Your task to perform on an android device: toggle priority inbox in the gmail app Image 0: 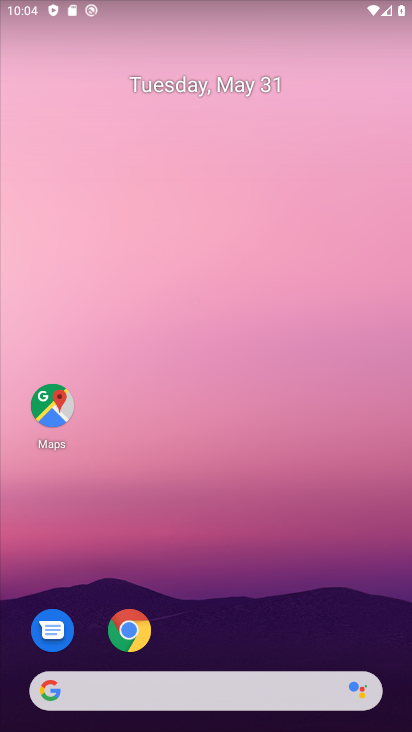
Step 0: drag from (244, 588) to (267, 180)
Your task to perform on an android device: toggle priority inbox in the gmail app Image 1: 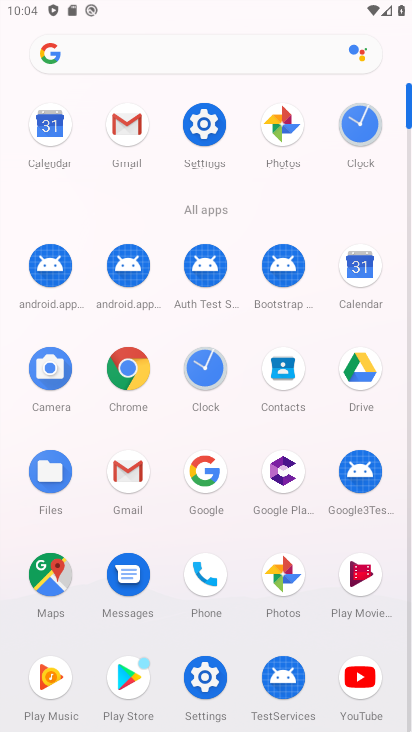
Step 1: click (132, 117)
Your task to perform on an android device: toggle priority inbox in the gmail app Image 2: 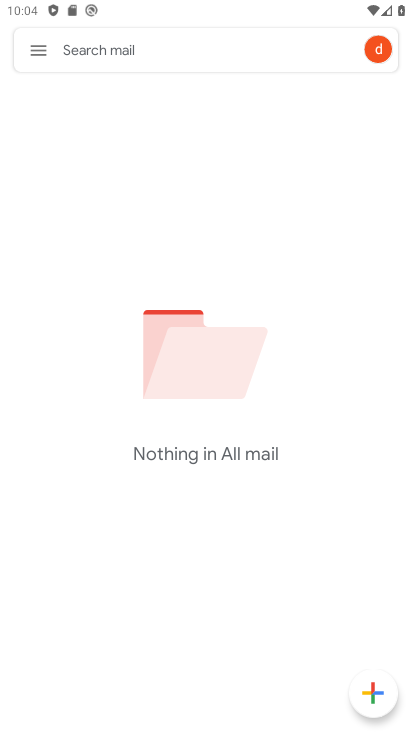
Step 2: click (34, 58)
Your task to perform on an android device: toggle priority inbox in the gmail app Image 3: 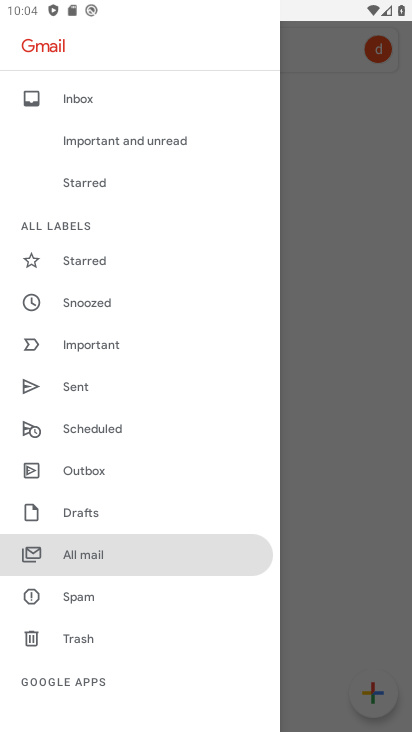
Step 3: drag from (154, 694) to (191, 332)
Your task to perform on an android device: toggle priority inbox in the gmail app Image 4: 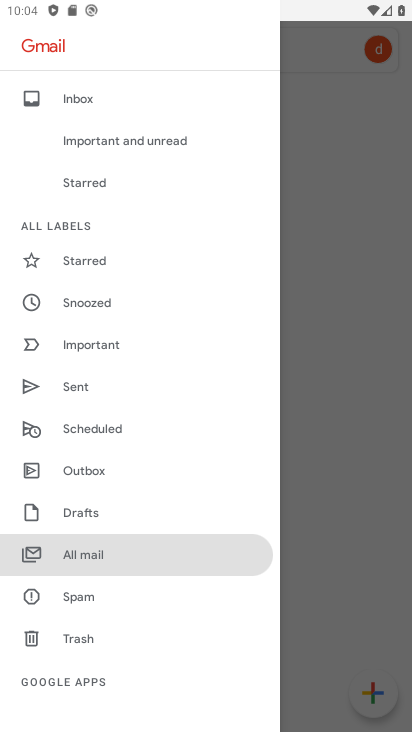
Step 4: drag from (138, 702) to (157, 354)
Your task to perform on an android device: toggle priority inbox in the gmail app Image 5: 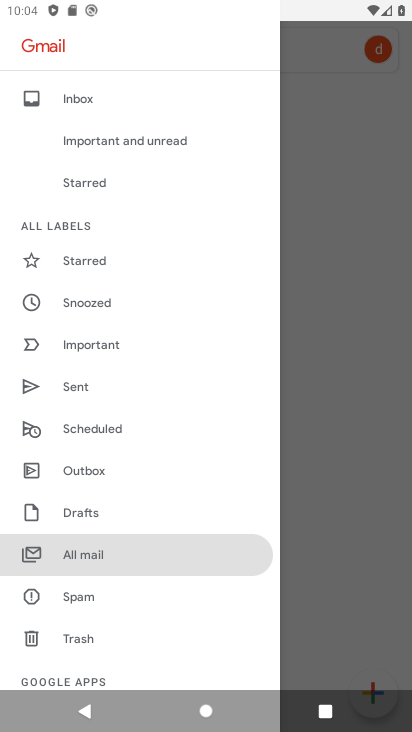
Step 5: drag from (242, 644) to (219, 344)
Your task to perform on an android device: toggle priority inbox in the gmail app Image 6: 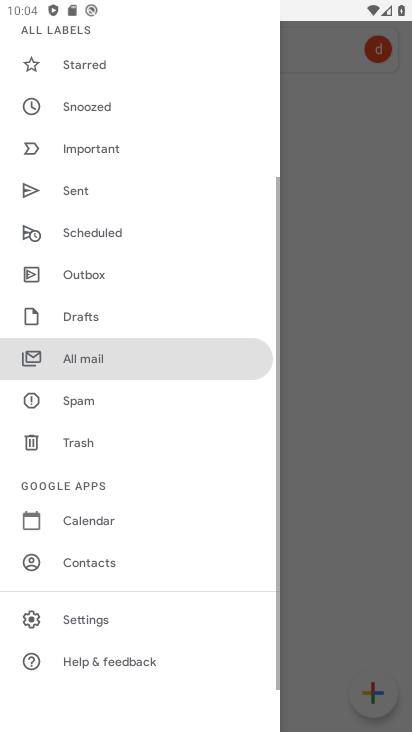
Step 6: click (88, 621)
Your task to perform on an android device: toggle priority inbox in the gmail app Image 7: 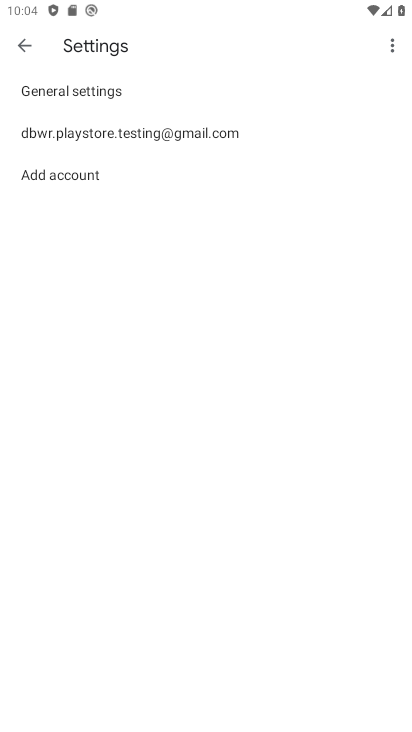
Step 7: click (81, 141)
Your task to perform on an android device: toggle priority inbox in the gmail app Image 8: 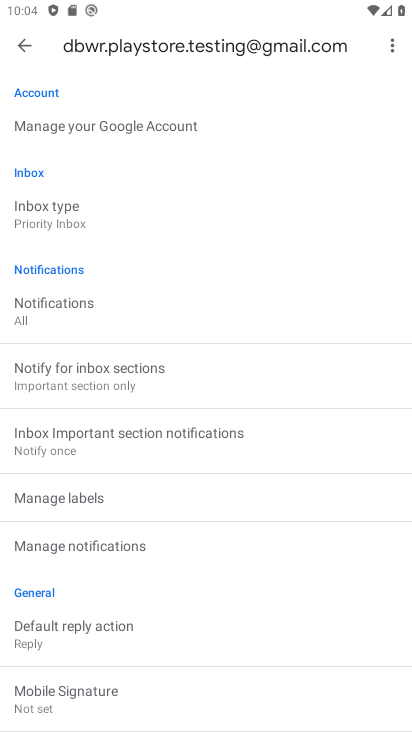
Step 8: click (52, 227)
Your task to perform on an android device: toggle priority inbox in the gmail app Image 9: 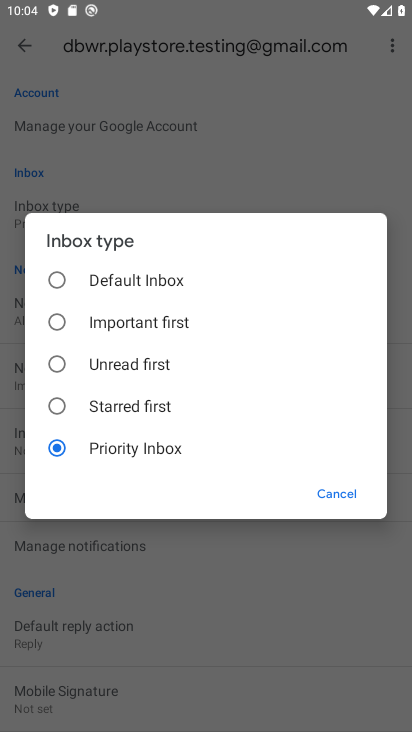
Step 9: click (97, 282)
Your task to perform on an android device: toggle priority inbox in the gmail app Image 10: 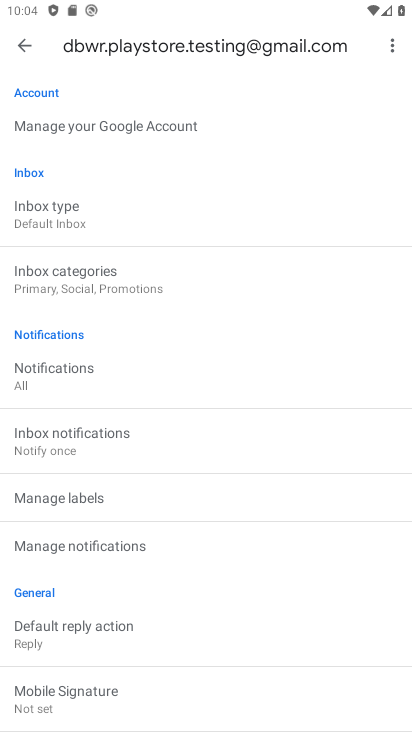
Step 10: task complete